Your task to perform on an android device: see tabs open on other devices in the chrome app Image 0: 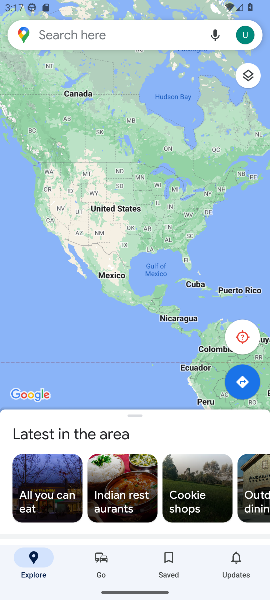
Step 0: press home button
Your task to perform on an android device: see tabs open on other devices in the chrome app Image 1: 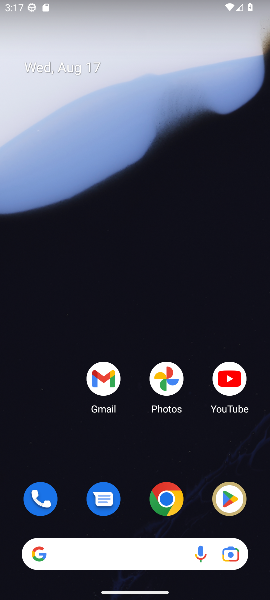
Step 1: drag from (192, 444) to (227, 8)
Your task to perform on an android device: see tabs open on other devices in the chrome app Image 2: 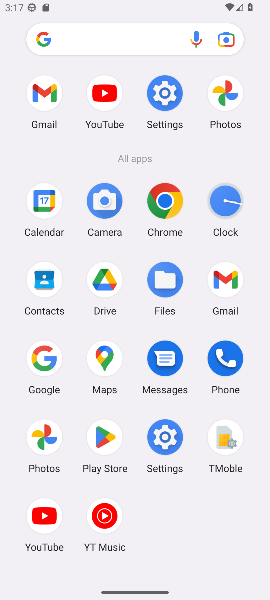
Step 2: click (158, 194)
Your task to perform on an android device: see tabs open on other devices in the chrome app Image 3: 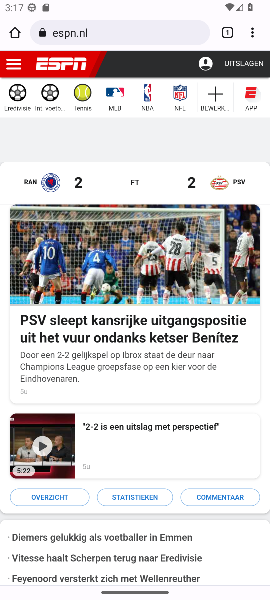
Step 3: task complete